Your task to perform on an android device: open device folders in google photos Image 0: 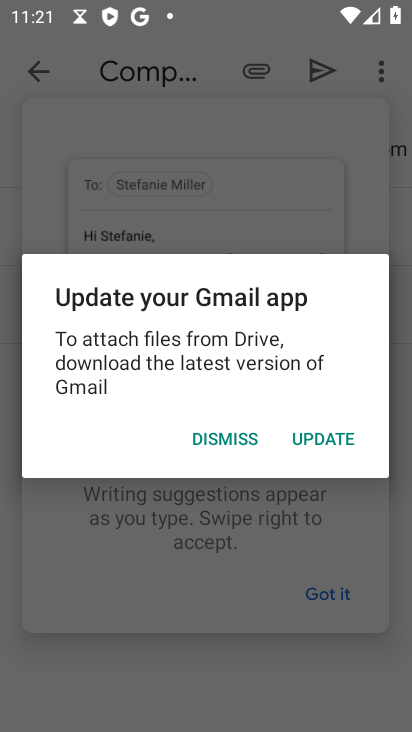
Step 0: press home button
Your task to perform on an android device: open device folders in google photos Image 1: 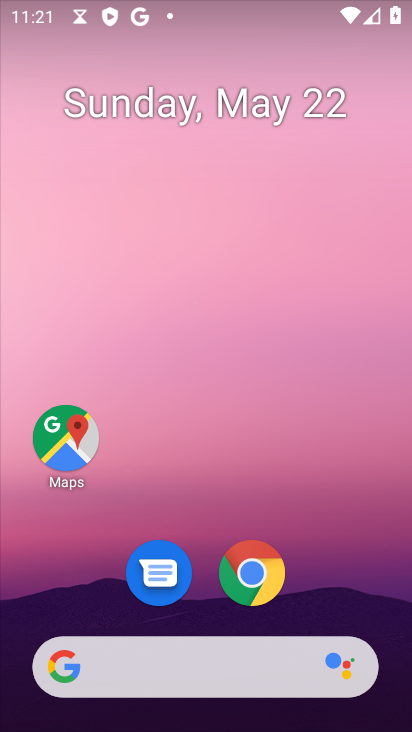
Step 1: drag from (160, 655) to (204, 218)
Your task to perform on an android device: open device folders in google photos Image 2: 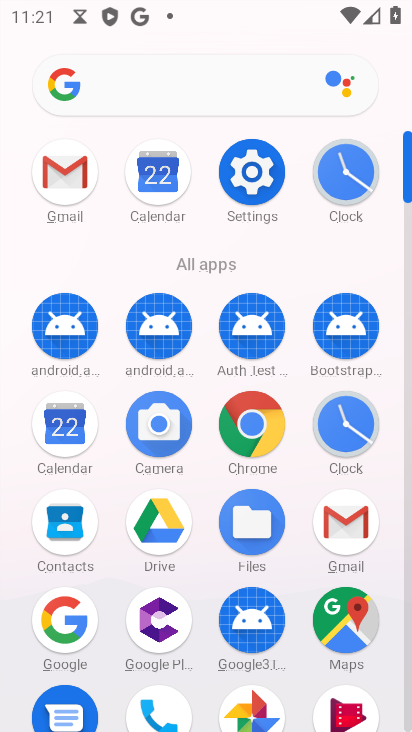
Step 2: drag from (203, 621) to (264, 159)
Your task to perform on an android device: open device folders in google photos Image 3: 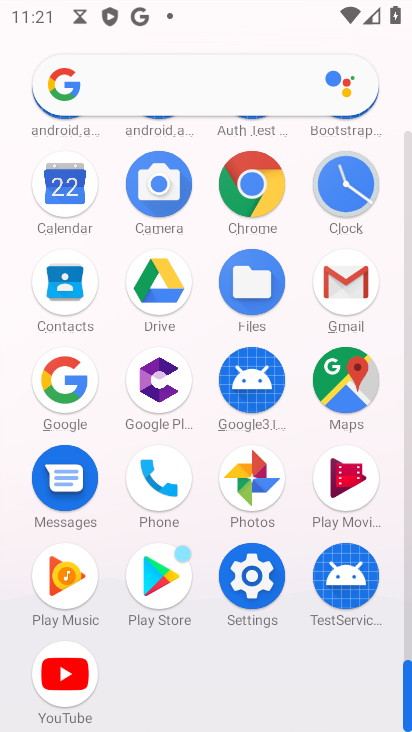
Step 3: click (251, 480)
Your task to perform on an android device: open device folders in google photos Image 4: 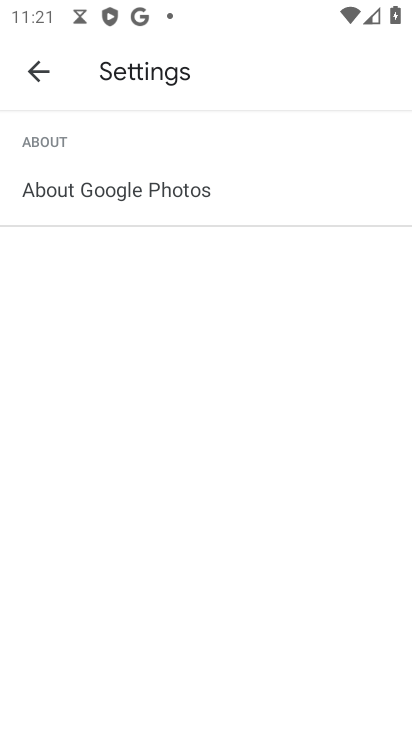
Step 4: click (40, 68)
Your task to perform on an android device: open device folders in google photos Image 5: 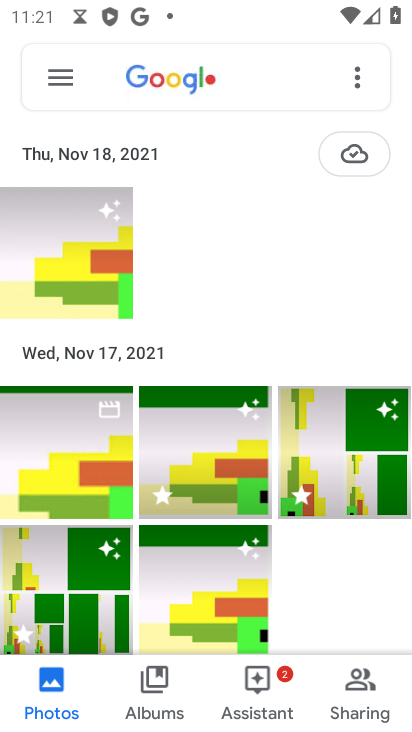
Step 5: click (245, 691)
Your task to perform on an android device: open device folders in google photos Image 6: 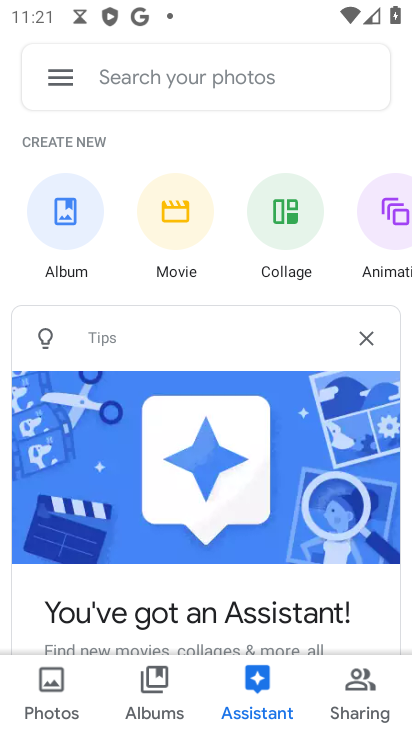
Step 6: click (145, 703)
Your task to perform on an android device: open device folders in google photos Image 7: 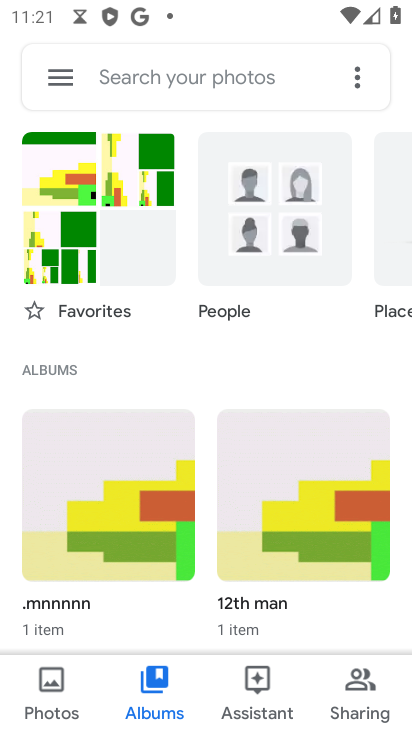
Step 7: task complete